Your task to perform on an android device: turn on the 24-hour format for clock Image 0: 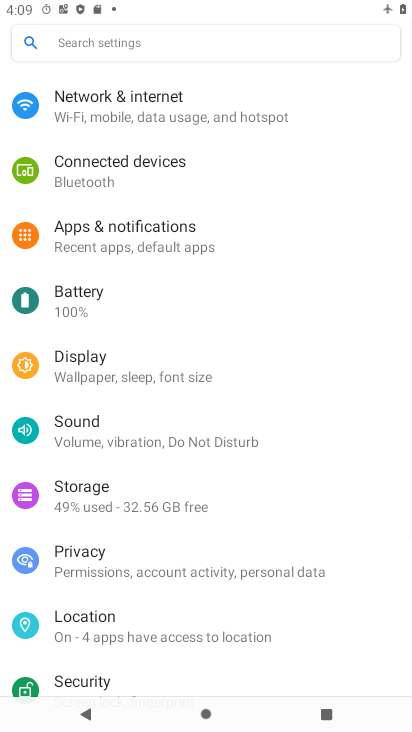
Step 0: press home button
Your task to perform on an android device: turn on the 24-hour format for clock Image 1: 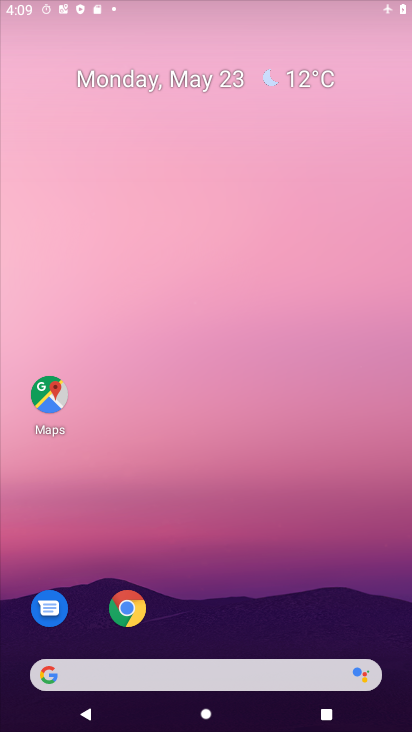
Step 1: drag from (311, 576) to (243, 24)
Your task to perform on an android device: turn on the 24-hour format for clock Image 2: 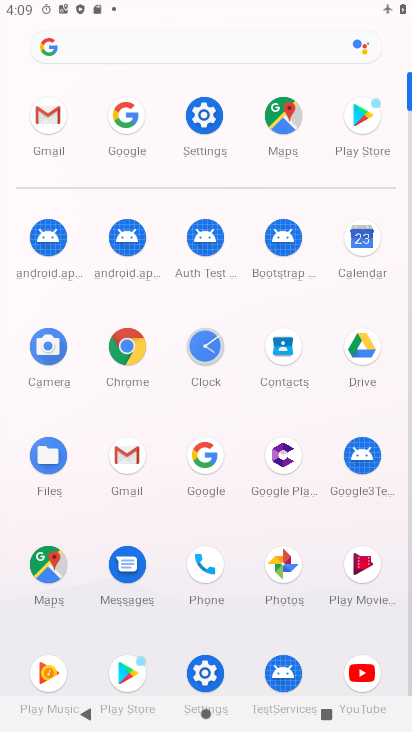
Step 2: click (207, 343)
Your task to perform on an android device: turn on the 24-hour format for clock Image 3: 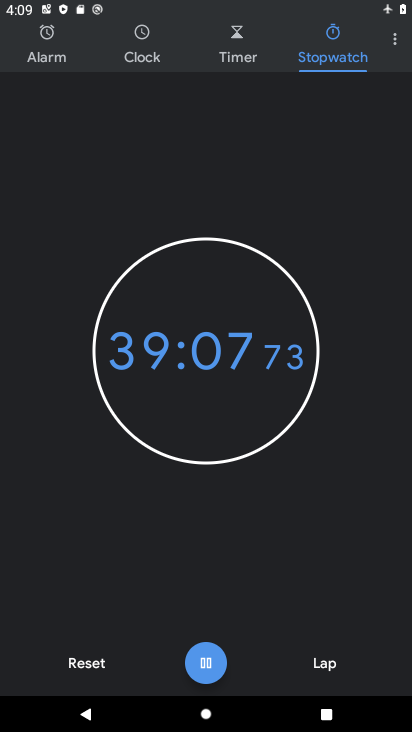
Step 3: click (399, 40)
Your task to perform on an android device: turn on the 24-hour format for clock Image 4: 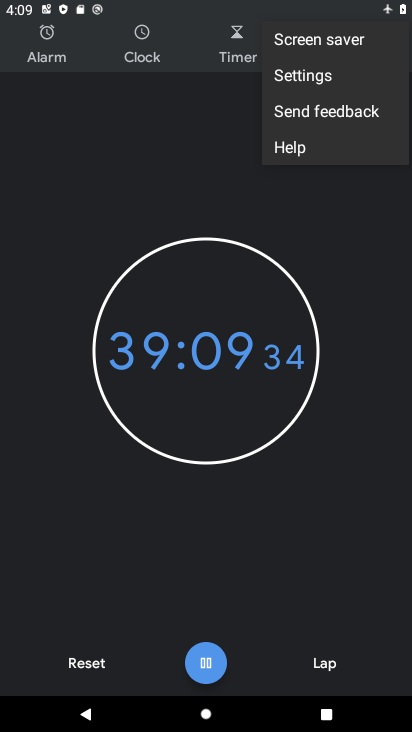
Step 4: click (300, 70)
Your task to perform on an android device: turn on the 24-hour format for clock Image 5: 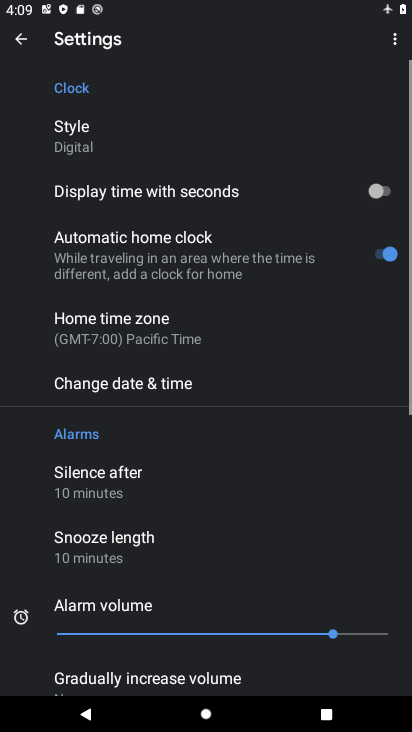
Step 5: click (177, 392)
Your task to perform on an android device: turn on the 24-hour format for clock Image 6: 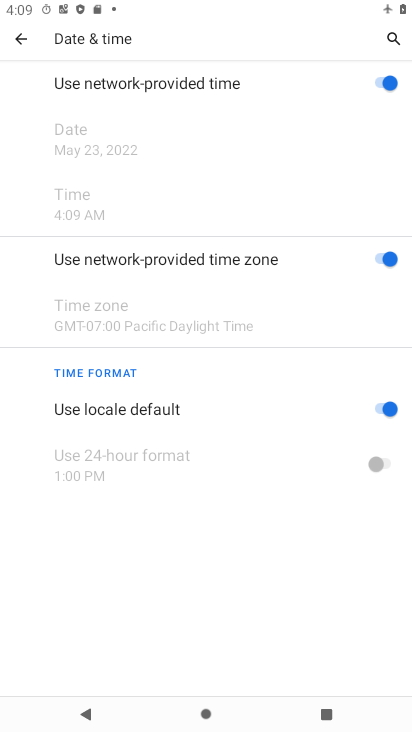
Step 6: click (386, 406)
Your task to perform on an android device: turn on the 24-hour format for clock Image 7: 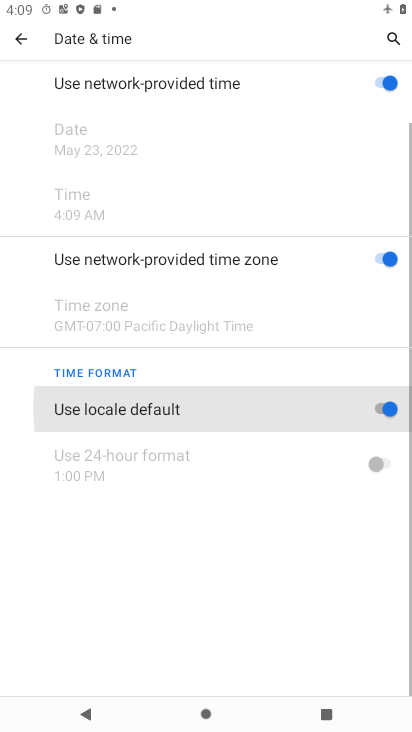
Step 7: click (374, 456)
Your task to perform on an android device: turn on the 24-hour format for clock Image 8: 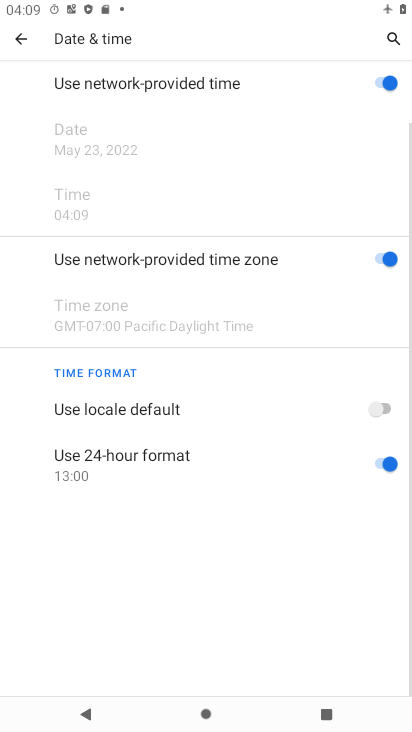
Step 8: task complete